Your task to perform on an android device: check out phone information Image 0: 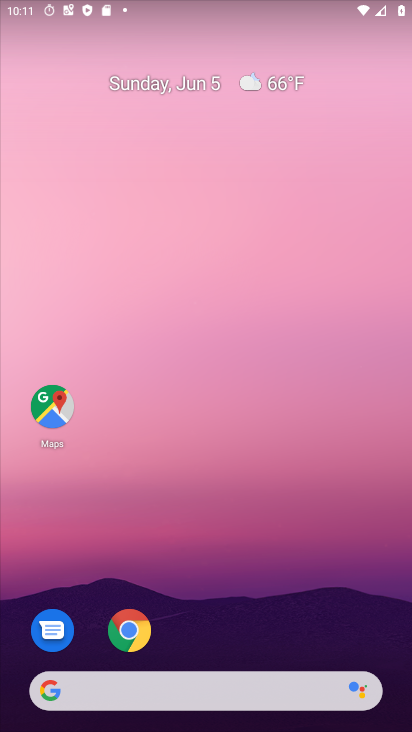
Step 0: click (242, 82)
Your task to perform on an android device: check out phone information Image 1: 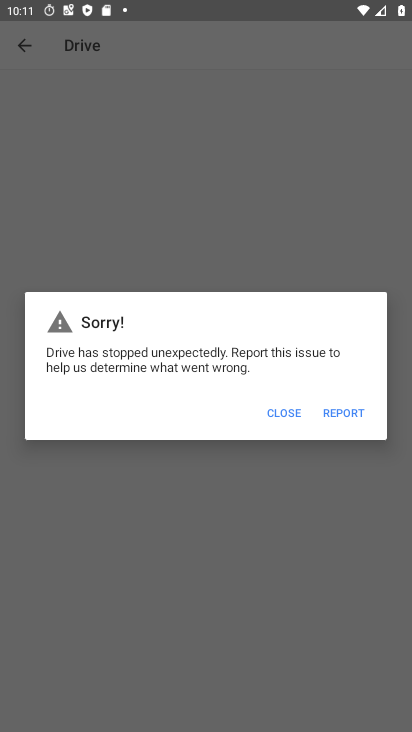
Step 1: press home button
Your task to perform on an android device: check out phone information Image 2: 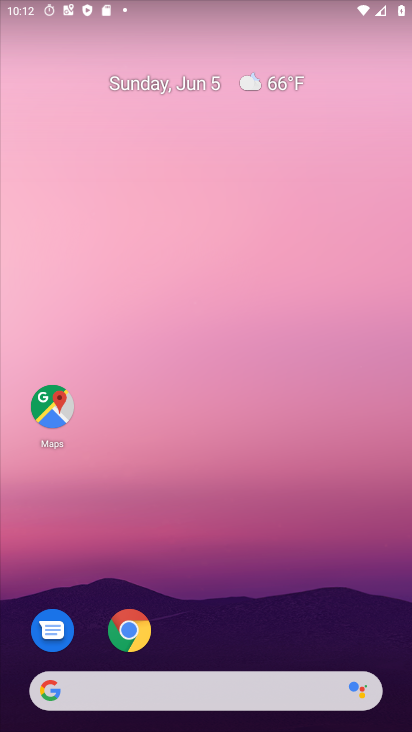
Step 2: drag from (213, 729) to (217, 1)
Your task to perform on an android device: check out phone information Image 3: 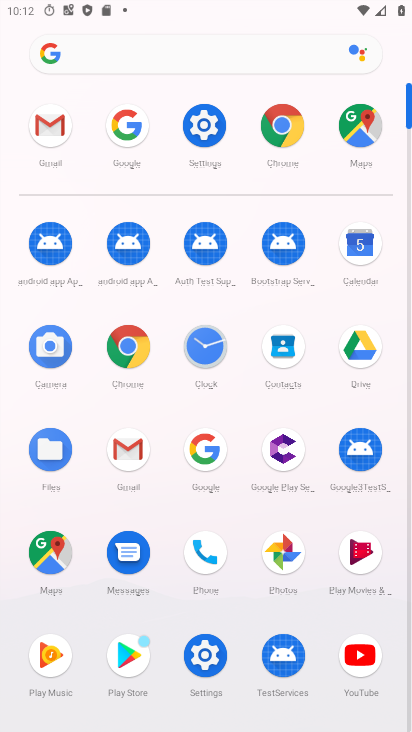
Step 3: click (200, 126)
Your task to perform on an android device: check out phone information Image 4: 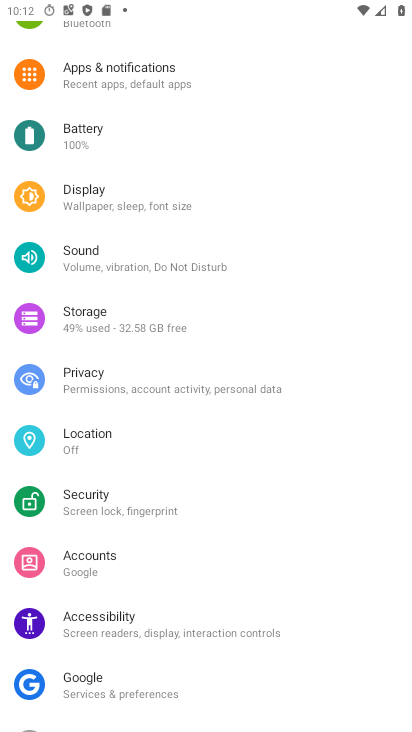
Step 4: drag from (137, 696) to (177, 189)
Your task to perform on an android device: check out phone information Image 5: 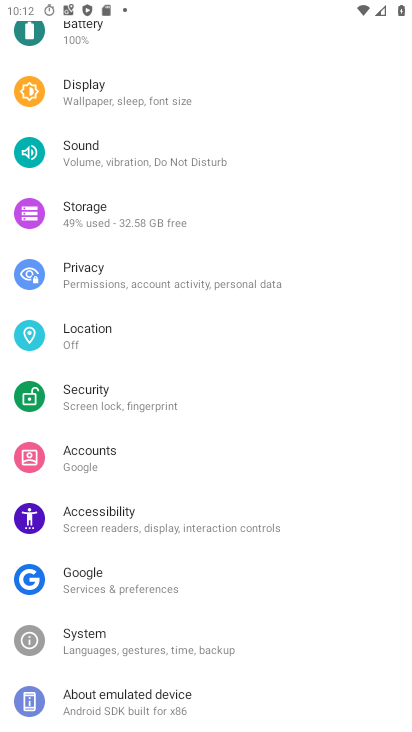
Step 5: drag from (111, 697) to (130, 177)
Your task to perform on an android device: check out phone information Image 6: 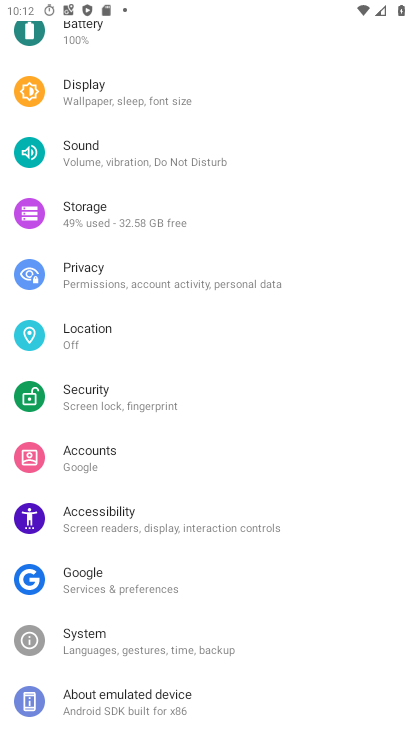
Step 6: drag from (150, 673) to (152, 172)
Your task to perform on an android device: check out phone information Image 7: 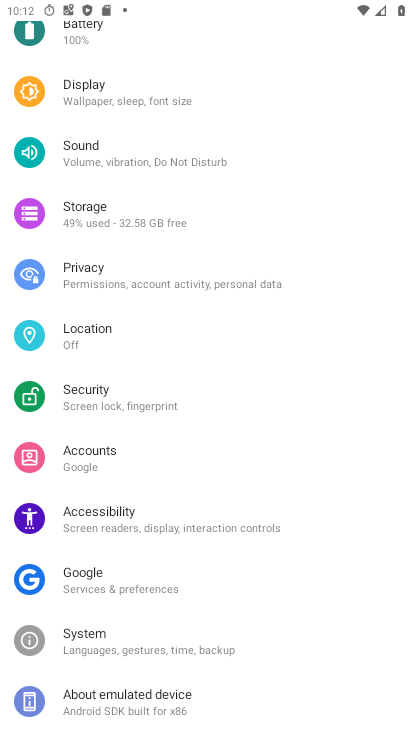
Step 7: click (113, 702)
Your task to perform on an android device: check out phone information Image 8: 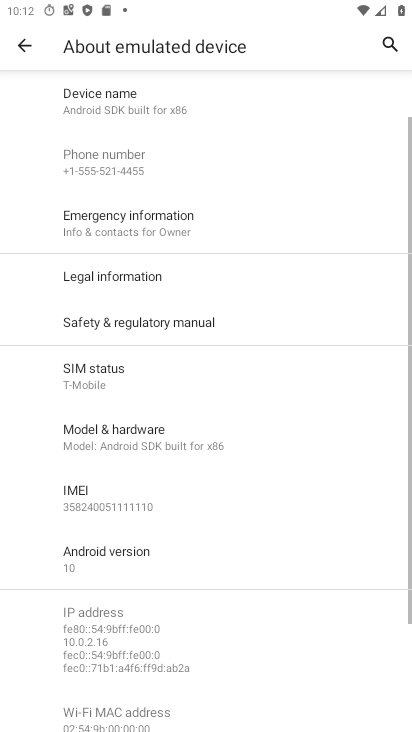
Step 8: task complete